Your task to perform on an android device: Is it going to rain this weekend? Image 0: 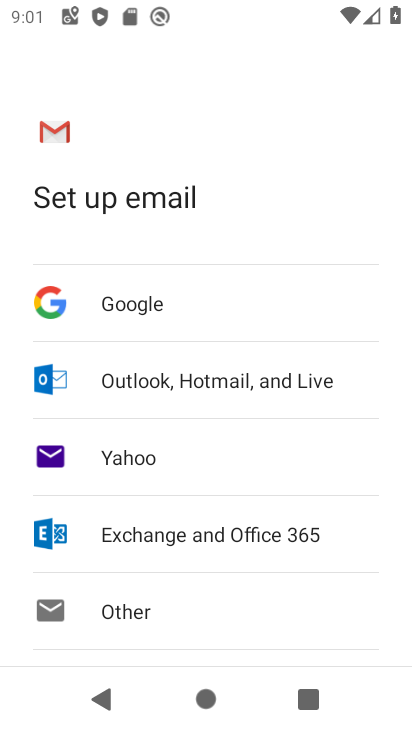
Step 0: press home button
Your task to perform on an android device: Is it going to rain this weekend? Image 1: 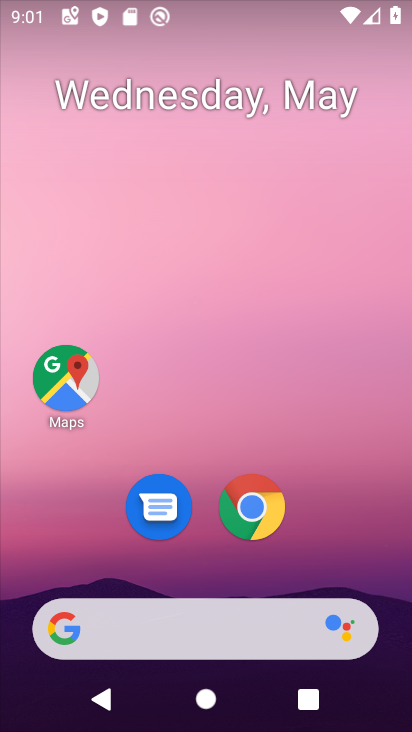
Step 1: drag from (344, 560) to (289, 237)
Your task to perform on an android device: Is it going to rain this weekend? Image 2: 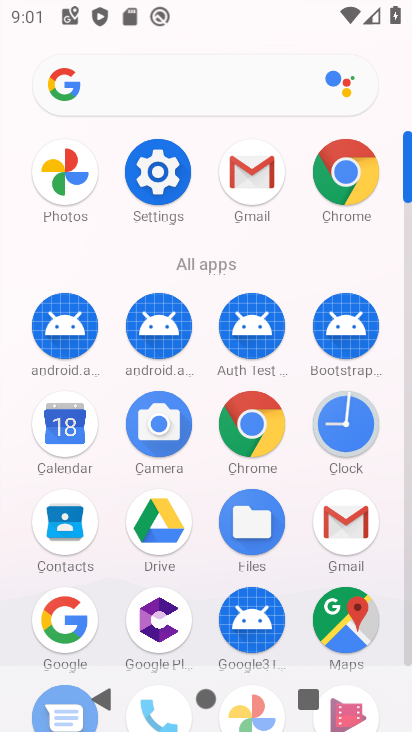
Step 2: click (340, 188)
Your task to perform on an android device: Is it going to rain this weekend? Image 3: 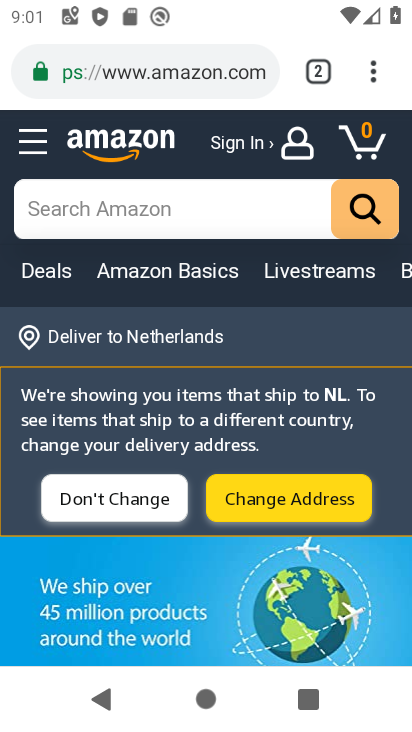
Step 3: click (380, 70)
Your task to perform on an android device: Is it going to rain this weekend? Image 4: 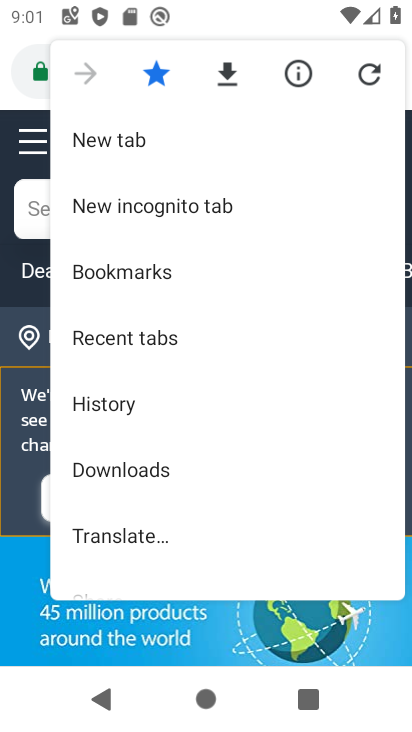
Step 4: drag from (120, 710) to (404, 727)
Your task to perform on an android device: Is it going to rain this weekend? Image 5: 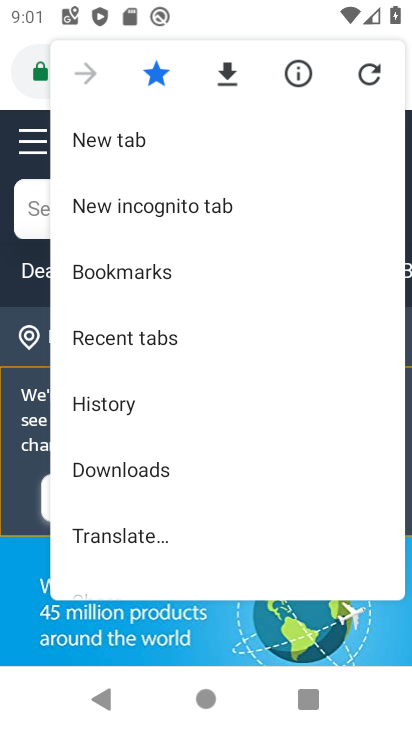
Step 5: click (120, 141)
Your task to perform on an android device: Is it going to rain this weekend? Image 6: 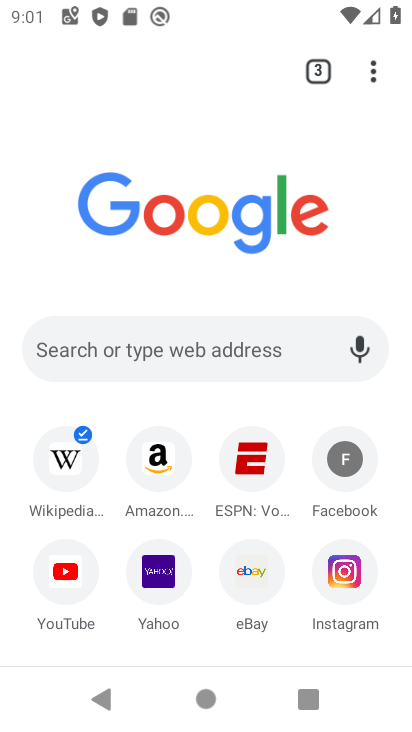
Step 6: click (230, 358)
Your task to perform on an android device: Is it going to rain this weekend? Image 7: 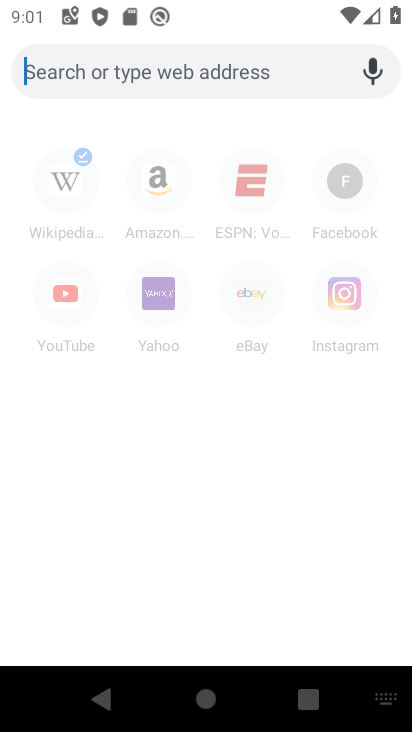
Step 7: type "Is it going to rain this weekend?"
Your task to perform on an android device: Is it going to rain this weekend? Image 8: 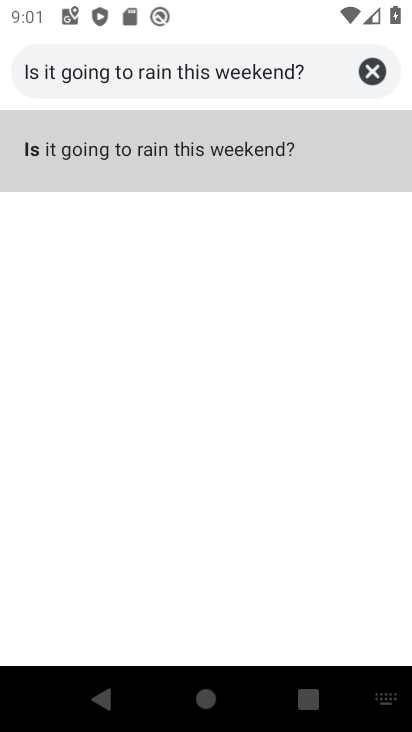
Step 8: click (288, 167)
Your task to perform on an android device: Is it going to rain this weekend? Image 9: 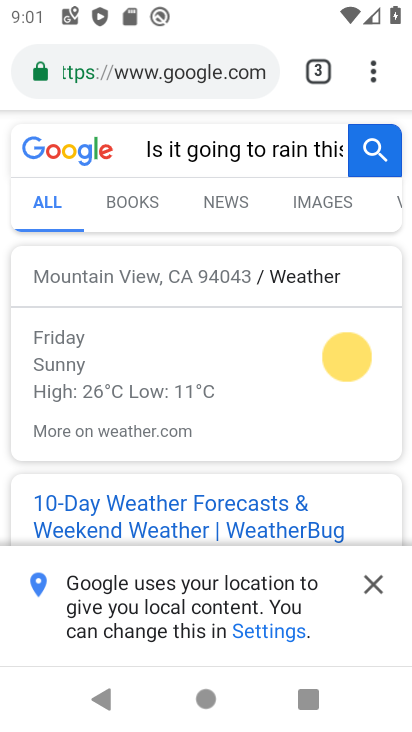
Step 9: click (371, 582)
Your task to perform on an android device: Is it going to rain this weekend? Image 10: 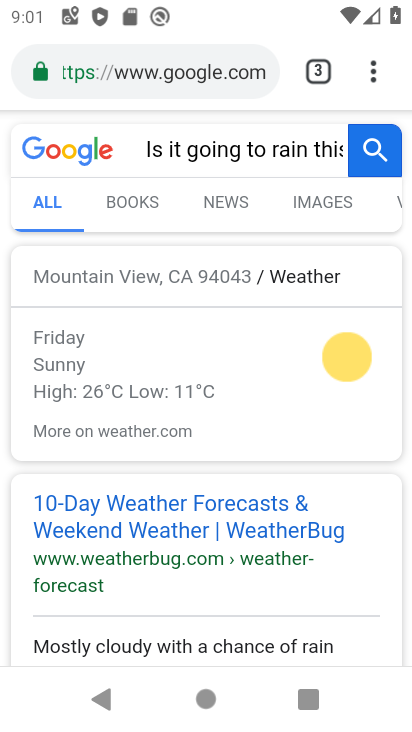
Step 10: task complete